Your task to perform on an android device: Check the weather Image 0: 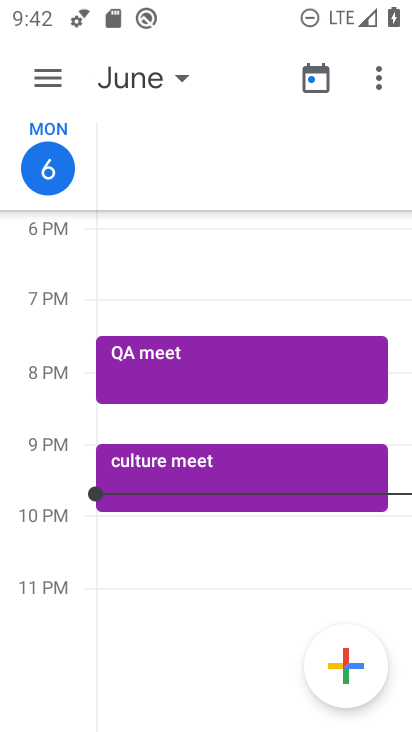
Step 0: press home button
Your task to perform on an android device: Check the weather Image 1: 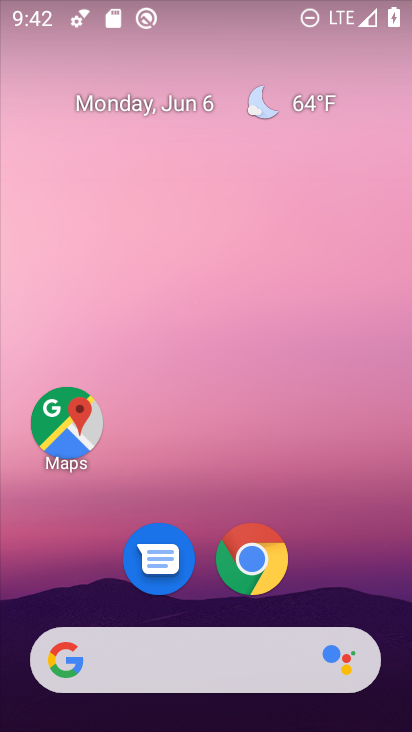
Step 1: drag from (238, 725) to (244, 147)
Your task to perform on an android device: Check the weather Image 2: 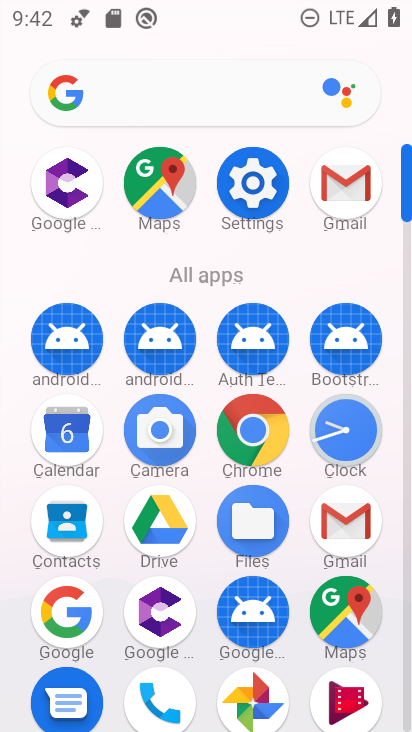
Step 2: click (71, 614)
Your task to perform on an android device: Check the weather Image 3: 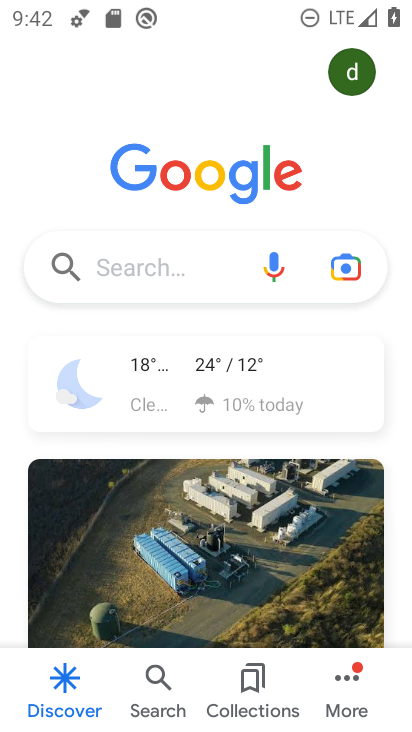
Step 3: click (175, 278)
Your task to perform on an android device: Check the weather Image 4: 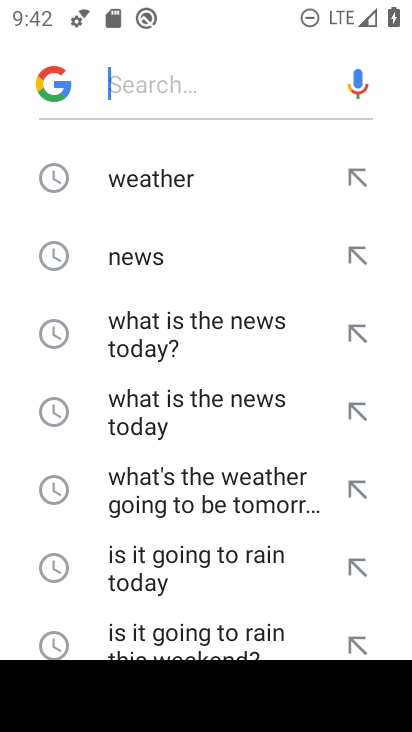
Step 4: click (142, 177)
Your task to perform on an android device: Check the weather Image 5: 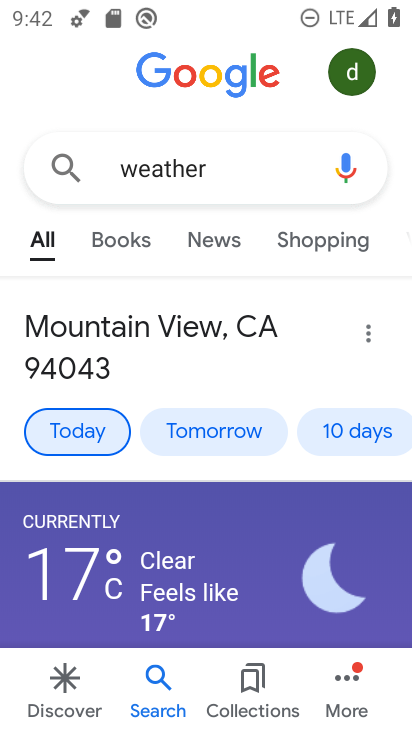
Step 5: click (223, 437)
Your task to perform on an android device: Check the weather Image 6: 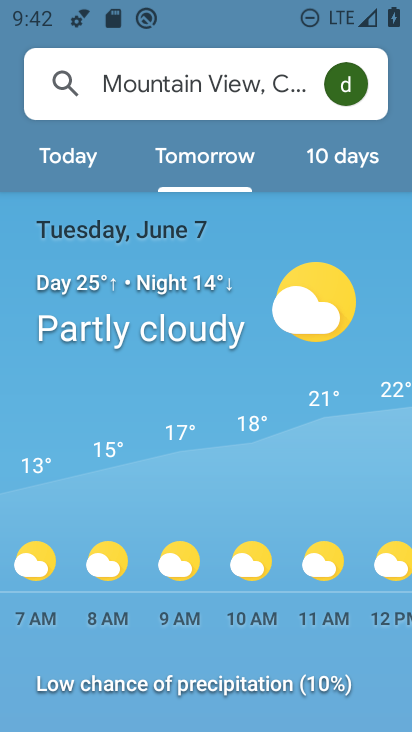
Step 6: task complete